Your task to perform on an android device: Search for Mexican restaurants on Maps Image 0: 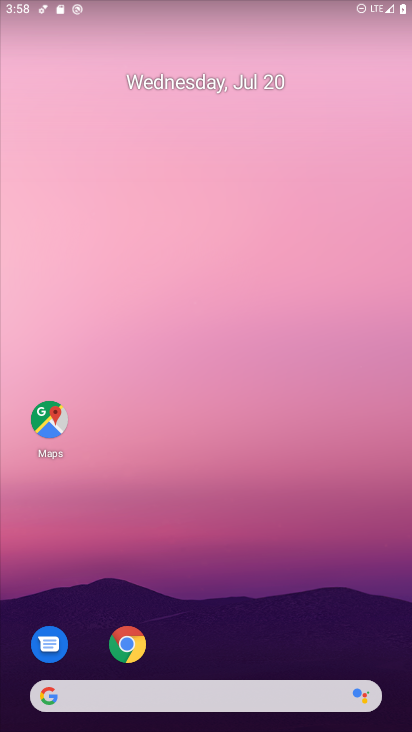
Step 0: drag from (165, 637) to (182, 119)
Your task to perform on an android device: Search for Mexican restaurants on Maps Image 1: 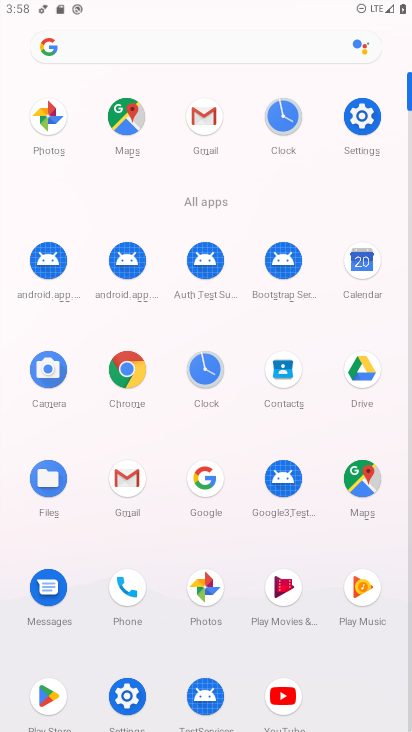
Step 1: click (368, 477)
Your task to perform on an android device: Search for Mexican restaurants on Maps Image 2: 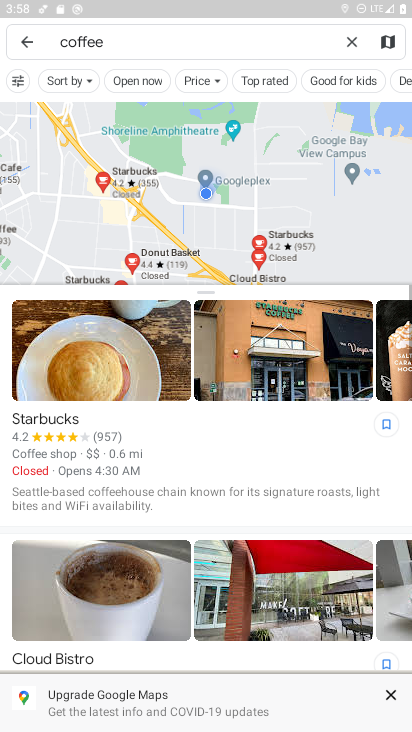
Step 2: click (346, 48)
Your task to perform on an android device: Search for Mexican restaurants on Maps Image 3: 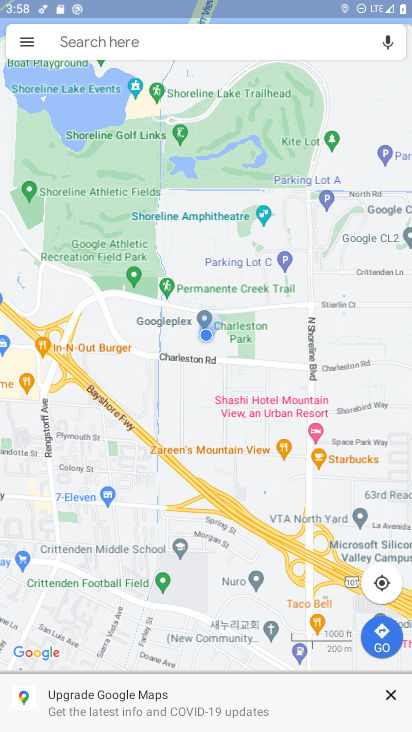
Step 3: click (170, 50)
Your task to perform on an android device: Search for Mexican restaurants on Maps Image 4: 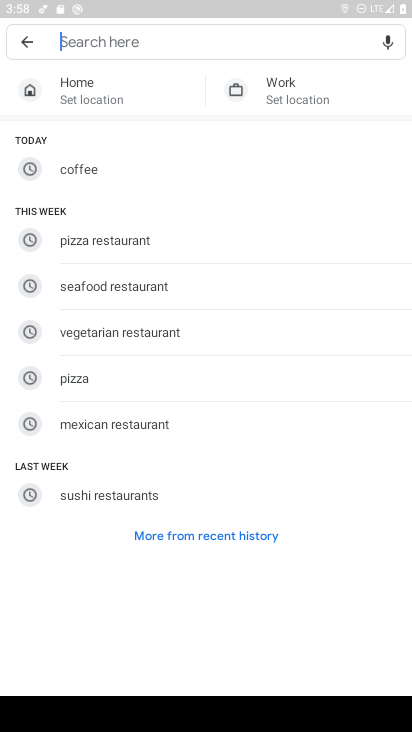
Step 4: click (144, 430)
Your task to perform on an android device: Search for Mexican restaurants on Maps Image 5: 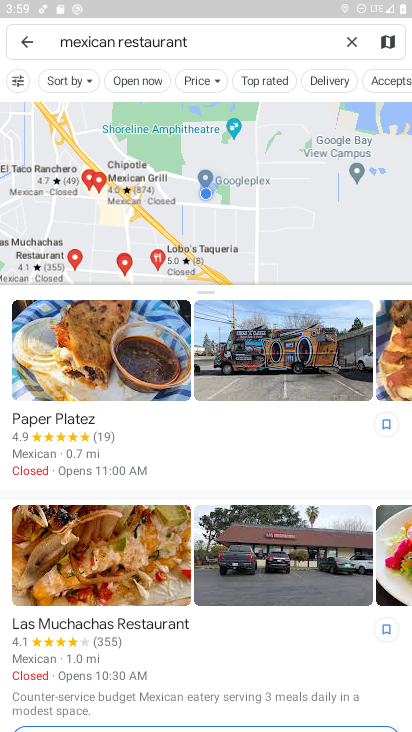
Step 5: task complete